Your task to perform on an android device: Go to ESPN.com Image 0: 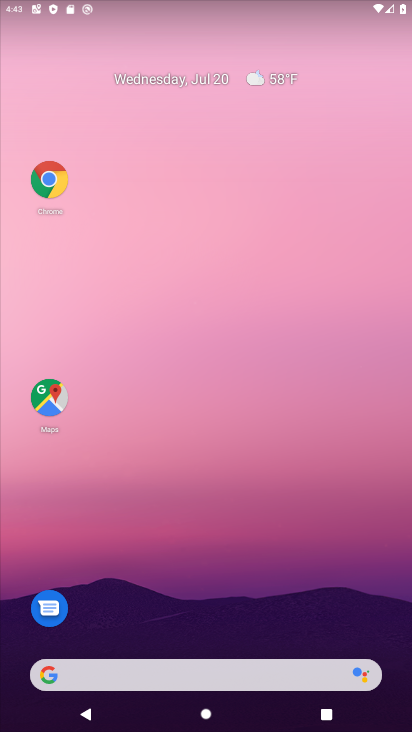
Step 0: click (48, 172)
Your task to perform on an android device: Go to ESPN.com Image 1: 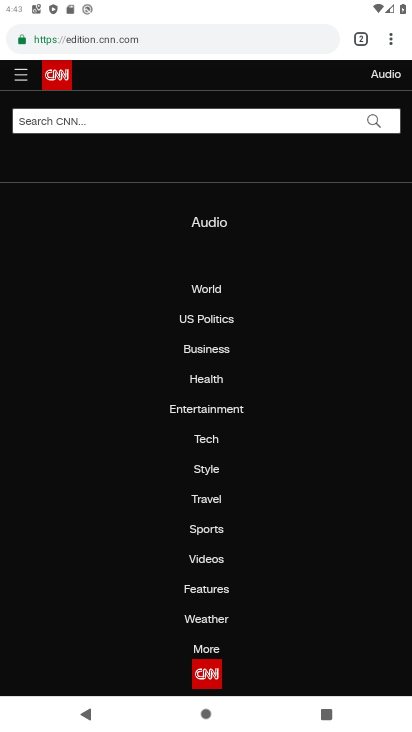
Step 1: click (180, 48)
Your task to perform on an android device: Go to ESPN.com Image 2: 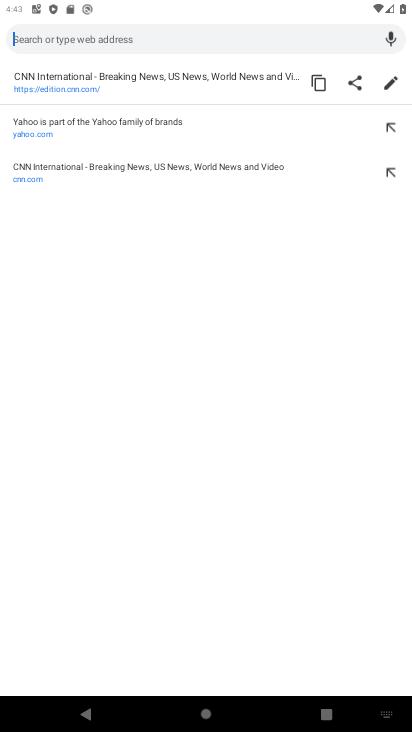
Step 2: type "espn"
Your task to perform on an android device: Go to ESPN.com Image 3: 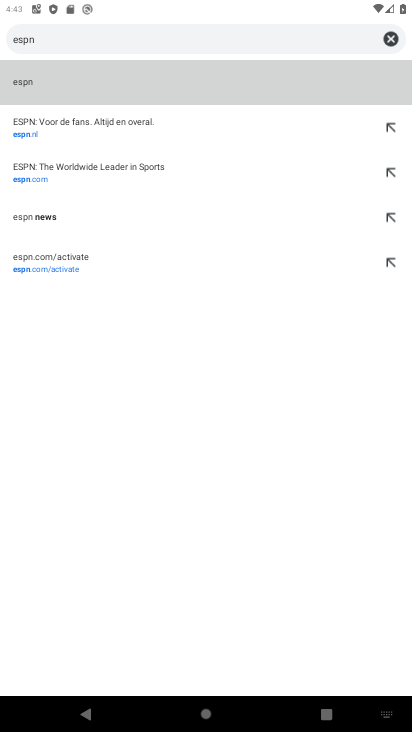
Step 3: click (115, 137)
Your task to perform on an android device: Go to ESPN.com Image 4: 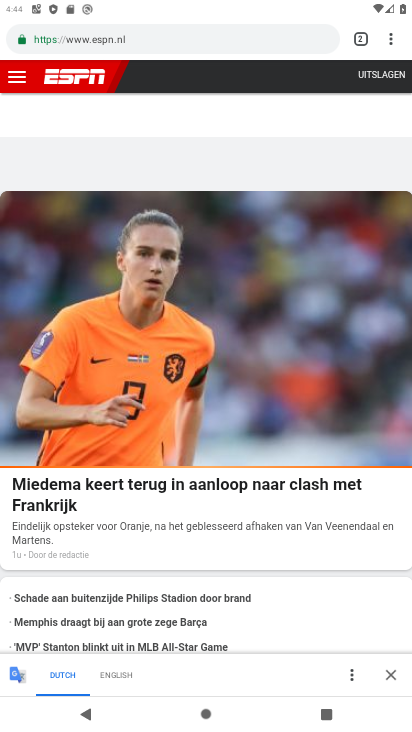
Step 4: task complete